Your task to perform on an android device: check data usage Image 0: 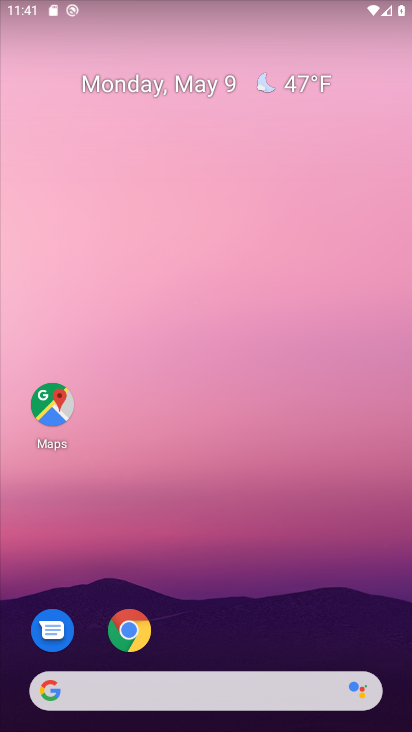
Step 0: drag from (239, 491) to (72, 104)
Your task to perform on an android device: check data usage Image 1: 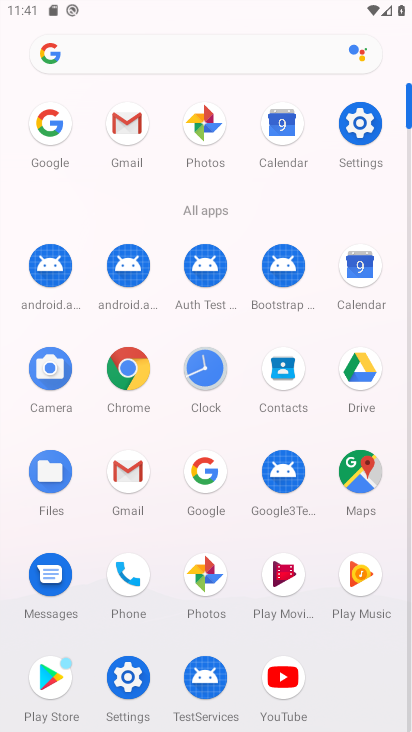
Step 1: click (357, 129)
Your task to perform on an android device: check data usage Image 2: 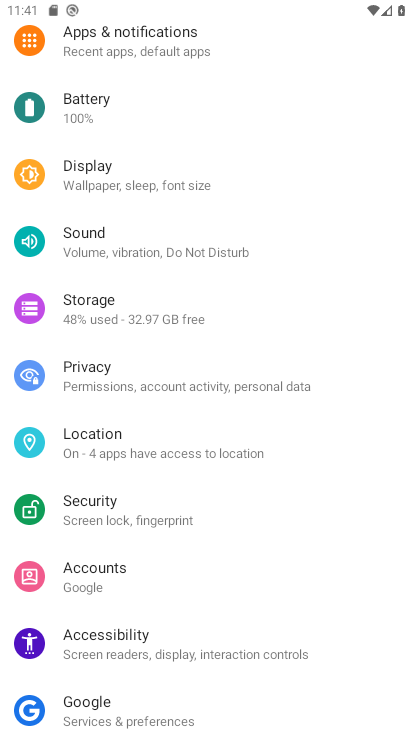
Step 2: drag from (183, 94) to (179, 538)
Your task to perform on an android device: check data usage Image 3: 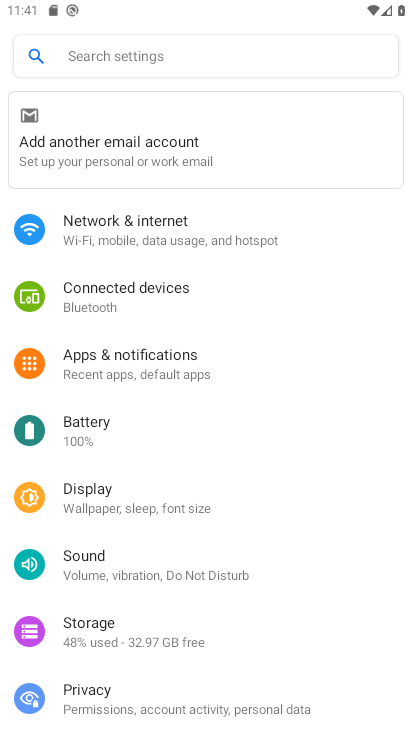
Step 3: click (187, 237)
Your task to perform on an android device: check data usage Image 4: 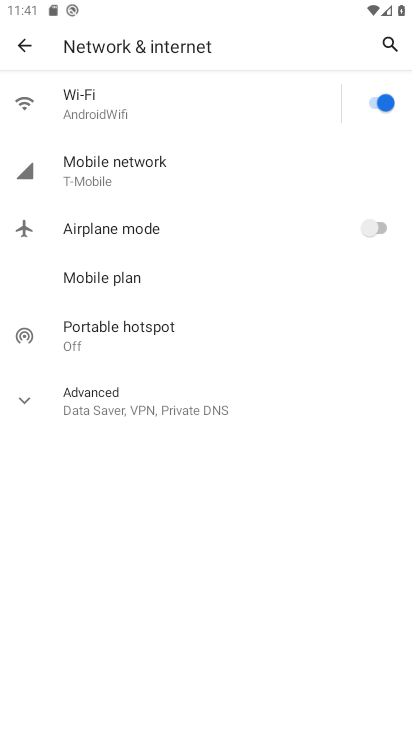
Step 4: click (129, 151)
Your task to perform on an android device: check data usage Image 5: 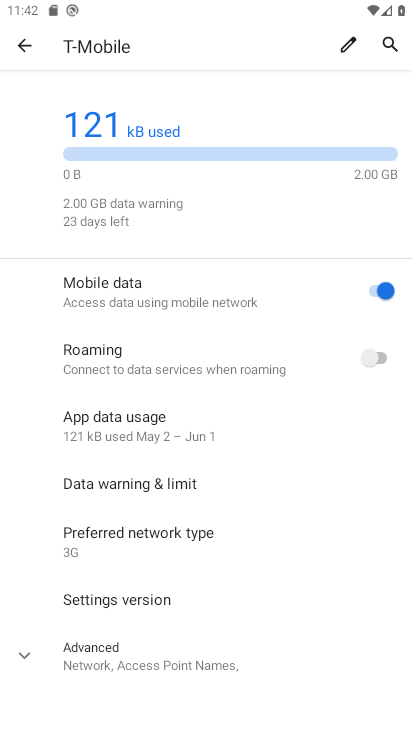
Step 5: task complete